Your task to perform on an android device: Check the weather Image 0: 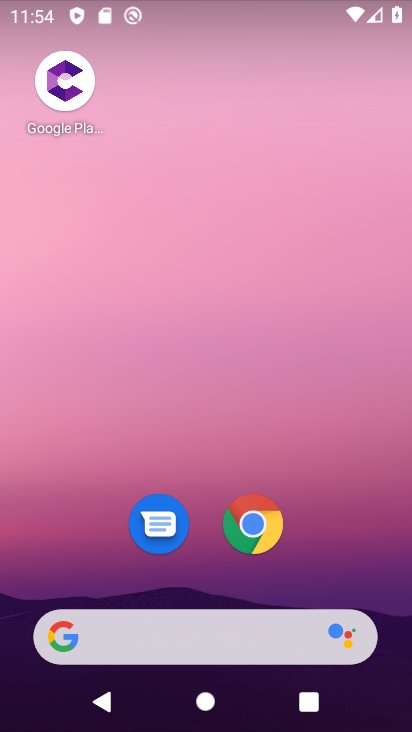
Step 0: drag from (339, 500) to (287, 59)
Your task to perform on an android device: Check the weather Image 1: 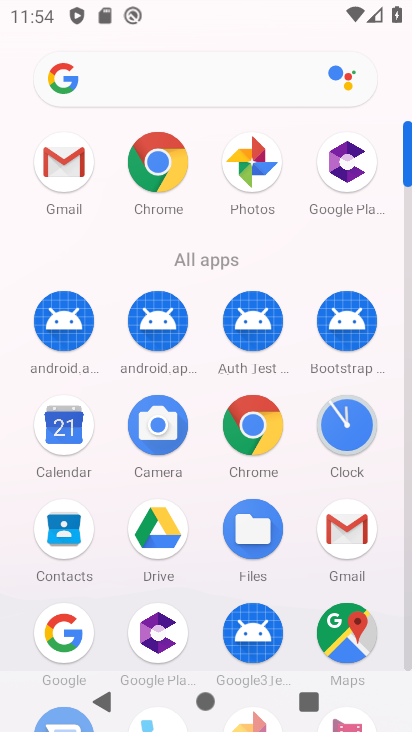
Step 1: click (262, 87)
Your task to perform on an android device: Check the weather Image 2: 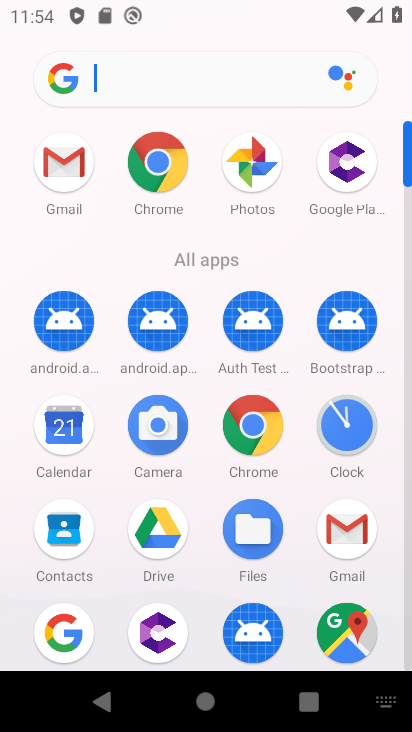
Step 2: click (66, 88)
Your task to perform on an android device: Check the weather Image 3: 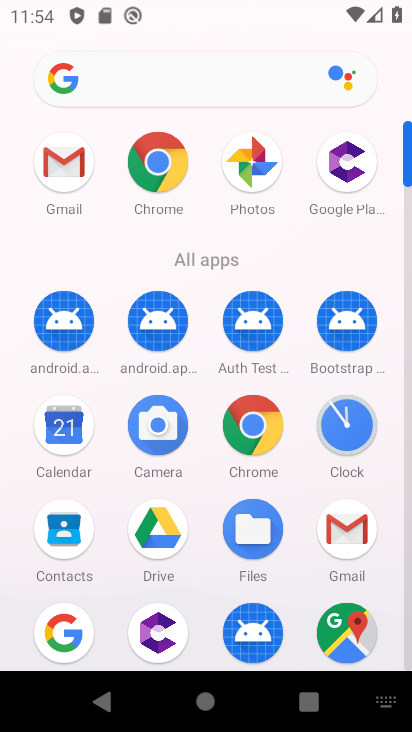
Step 3: click (60, 71)
Your task to perform on an android device: Check the weather Image 4: 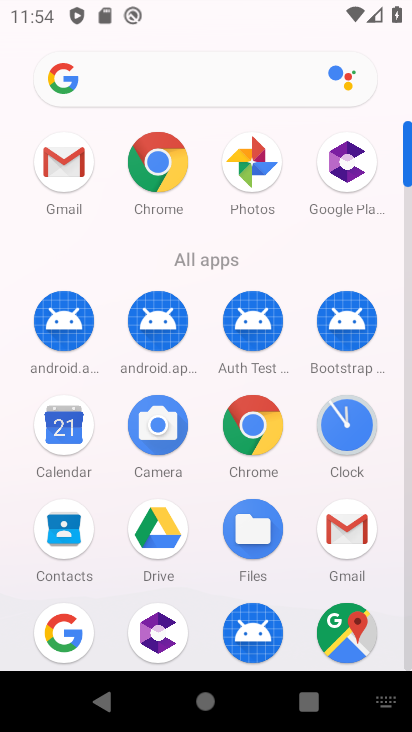
Step 4: click (60, 72)
Your task to perform on an android device: Check the weather Image 5: 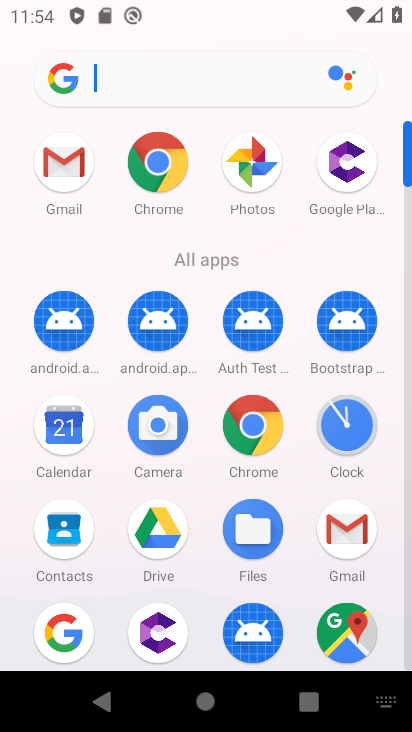
Step 5: click (67, 621)
Your task to perform on an android device: Check the weather Image 6: 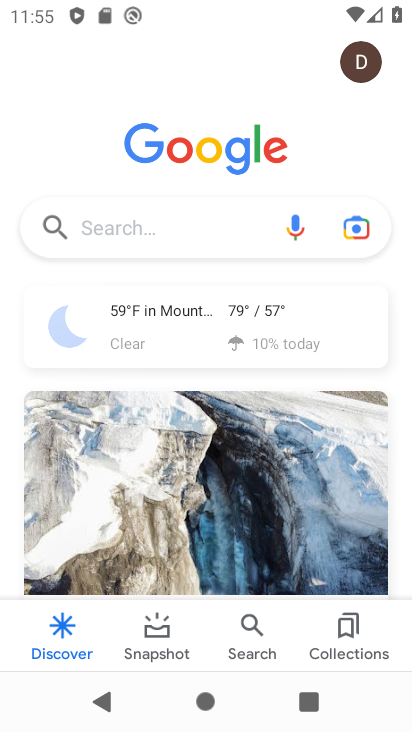
Step 6: click (187, 309)
Your task to perform on an android device: Check the weather Image 7: 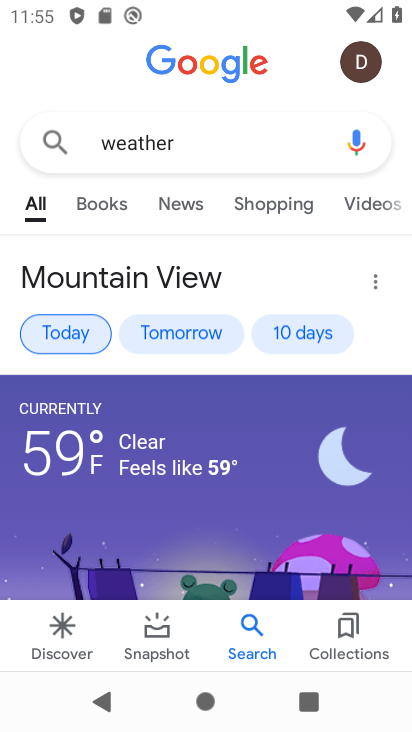
Step 7: click (88, 321)
Your task to perform on an android device: Check the weather Image 8: 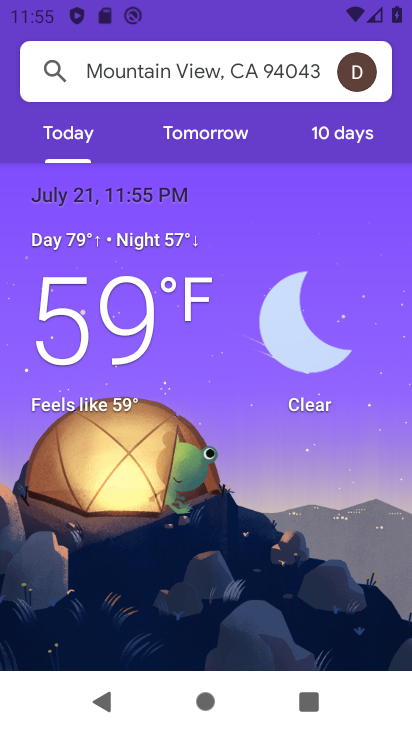
Step 8: task complete